Your task to perform on an android device: Open internet settings Image 0: 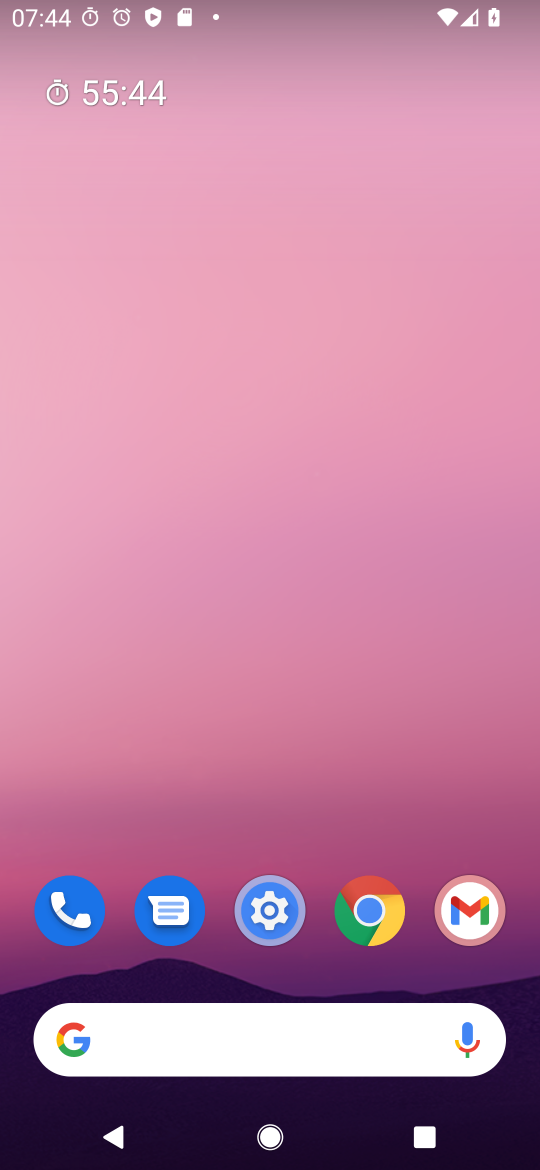
Step 0: drag from (388, 1011) to (390, 334)
Your task to perform on an android device: Open internet settings Image 1: 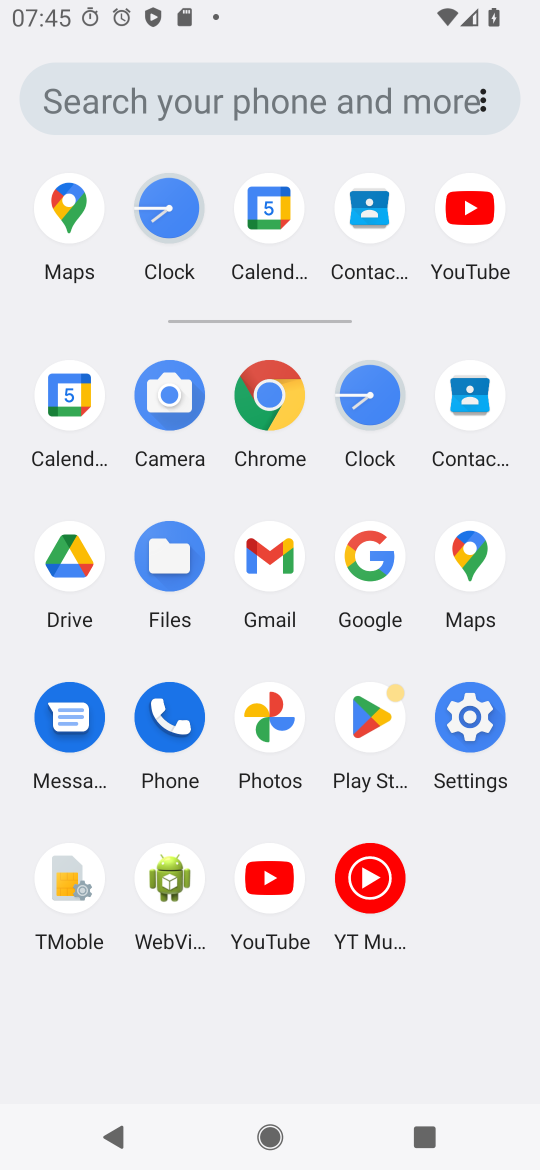
Step 1: click (479, 726)
Your task to perform on an android device: Open internet settings Image 2: 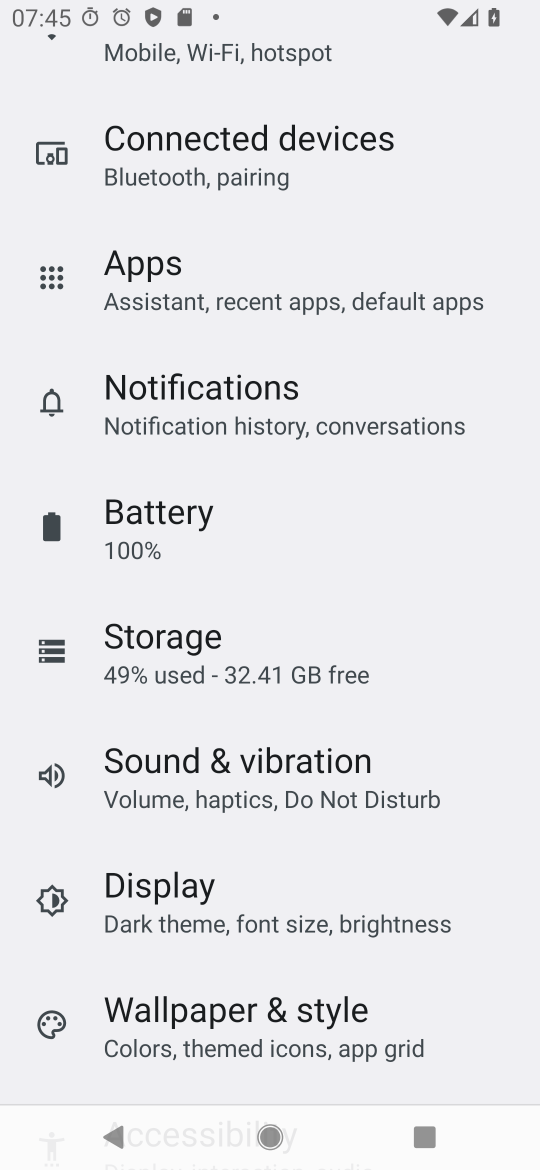
Step 2: drag from (294, 320) to (309, 1081)
Your task to perform on an android device: Open internet settings Image 3: 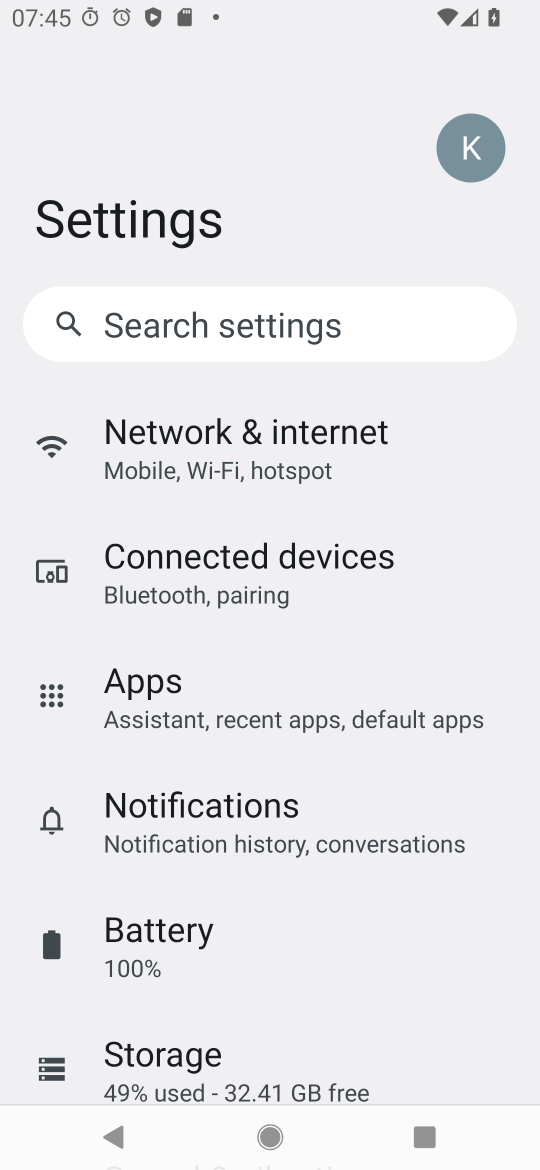
Step 3: click (202, 467)
Your task to perform on an android device: Open internet settings Image 4: 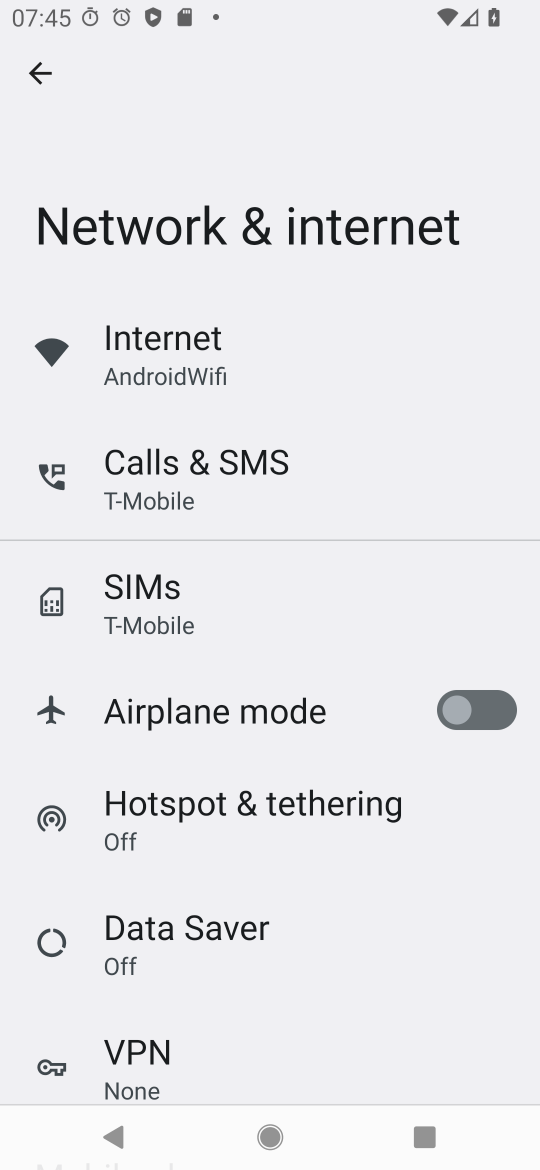
Step 4: task complete